Your task to perform on an android device: Go to eBay Image 0: 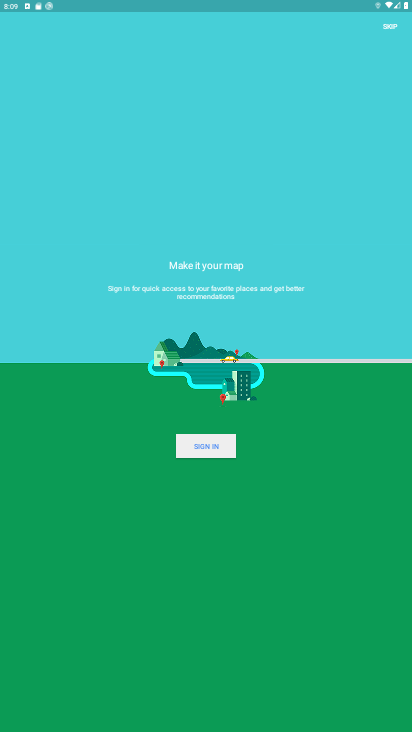
Step 0: press home button
Your task to perform on an android device: Go to eBay Image 1: 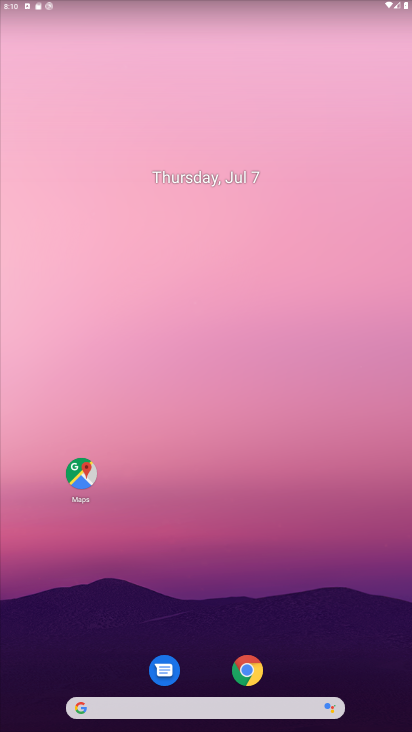
Step 1: click (255, 666)
Your task to perform on an android device: Go to eBay Image 2: 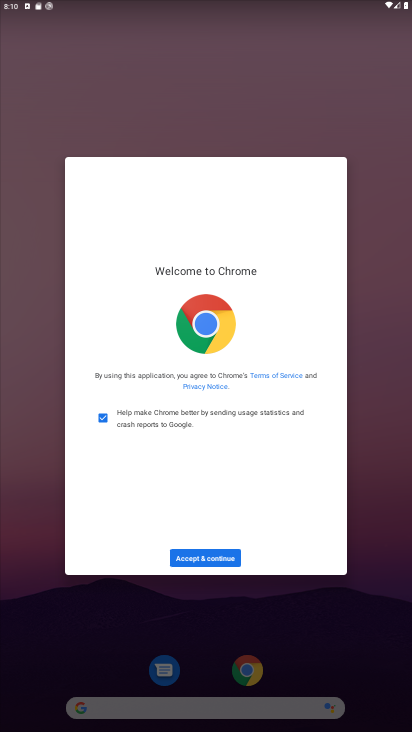
Step 2: click (193, 556)
Your task to perform on an android device: Go to eBay Image 3: 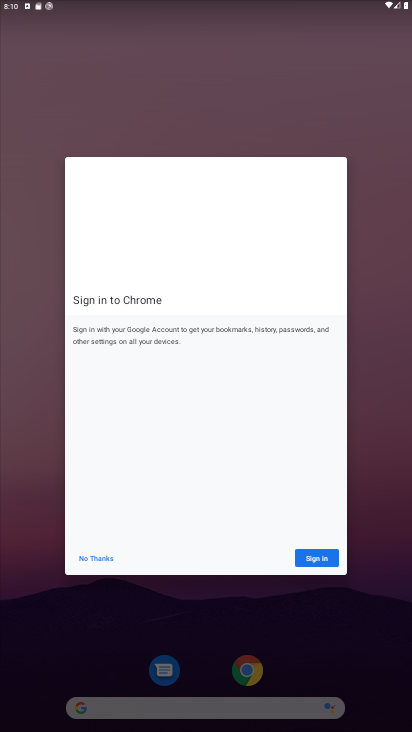
Step 3: click (91, 554)
Your task to perform on an android device: Go to eBay Image 4: 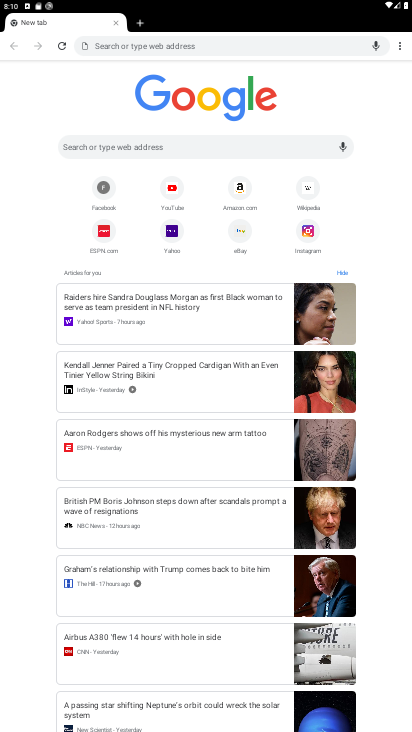
Step 4: click (246, 226)
Your task to perform on an android device: Go to eBay Image 5: 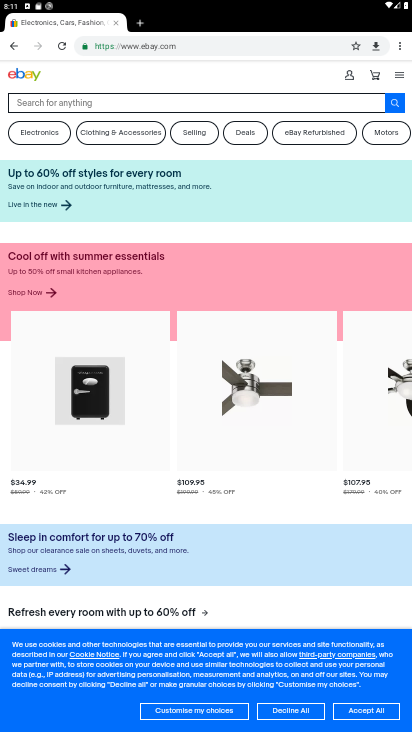
Step 5: task complete